Your task to perform on an android device: Search for flights from NYC to Buenos aires Image 0: 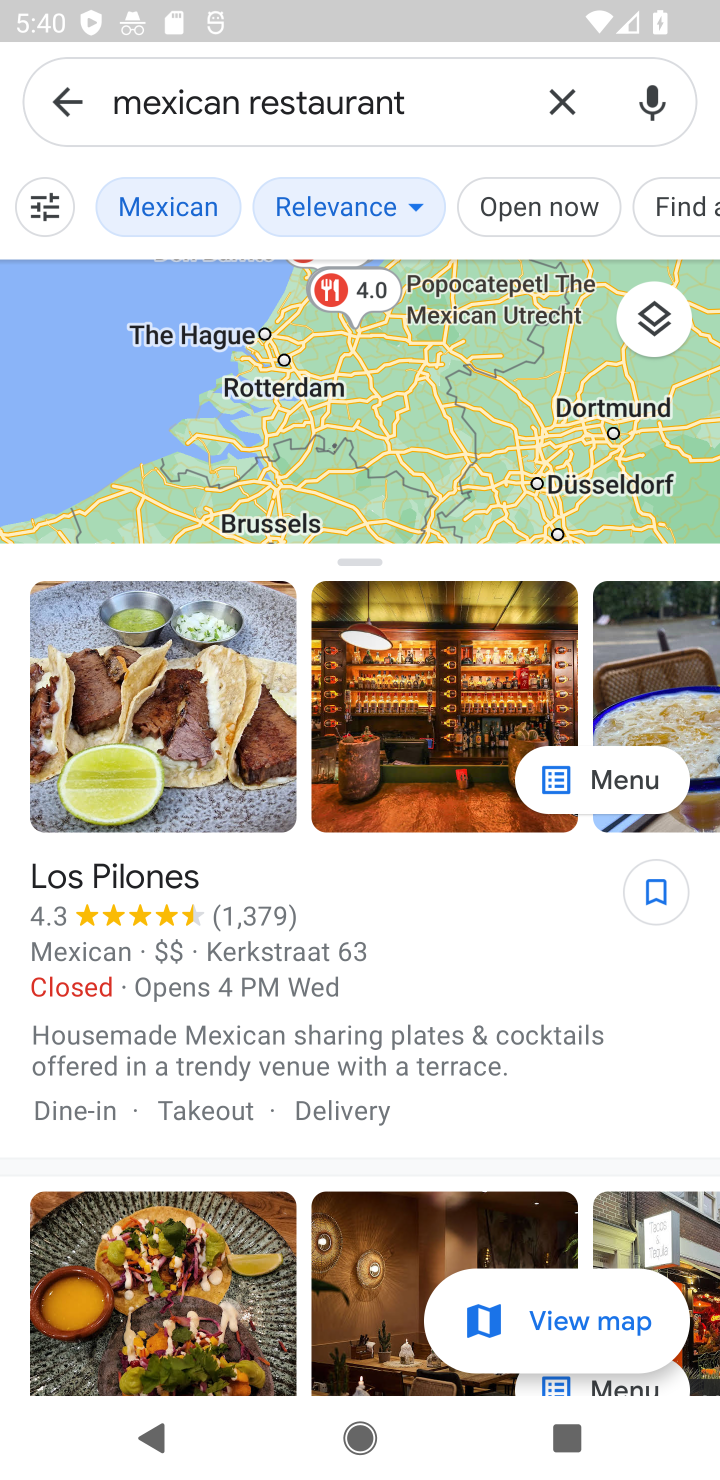
Step 0: press home button
Your task to perform on an android device: Search for flights from NYC to Buenos aires Image 1: 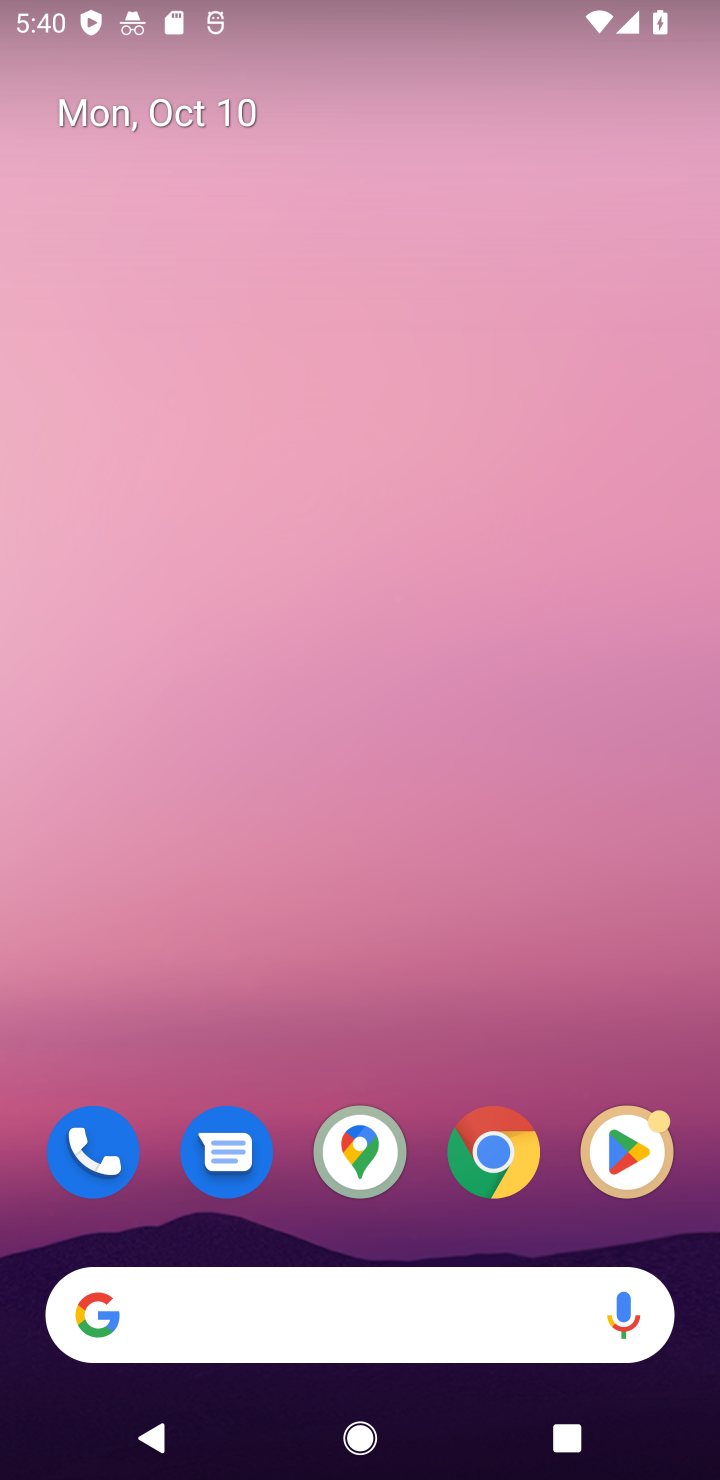
Step 1: click (494, 1151)
Your task to perform on an android device: Search for flights from NYC to Buenos aires Image 2: 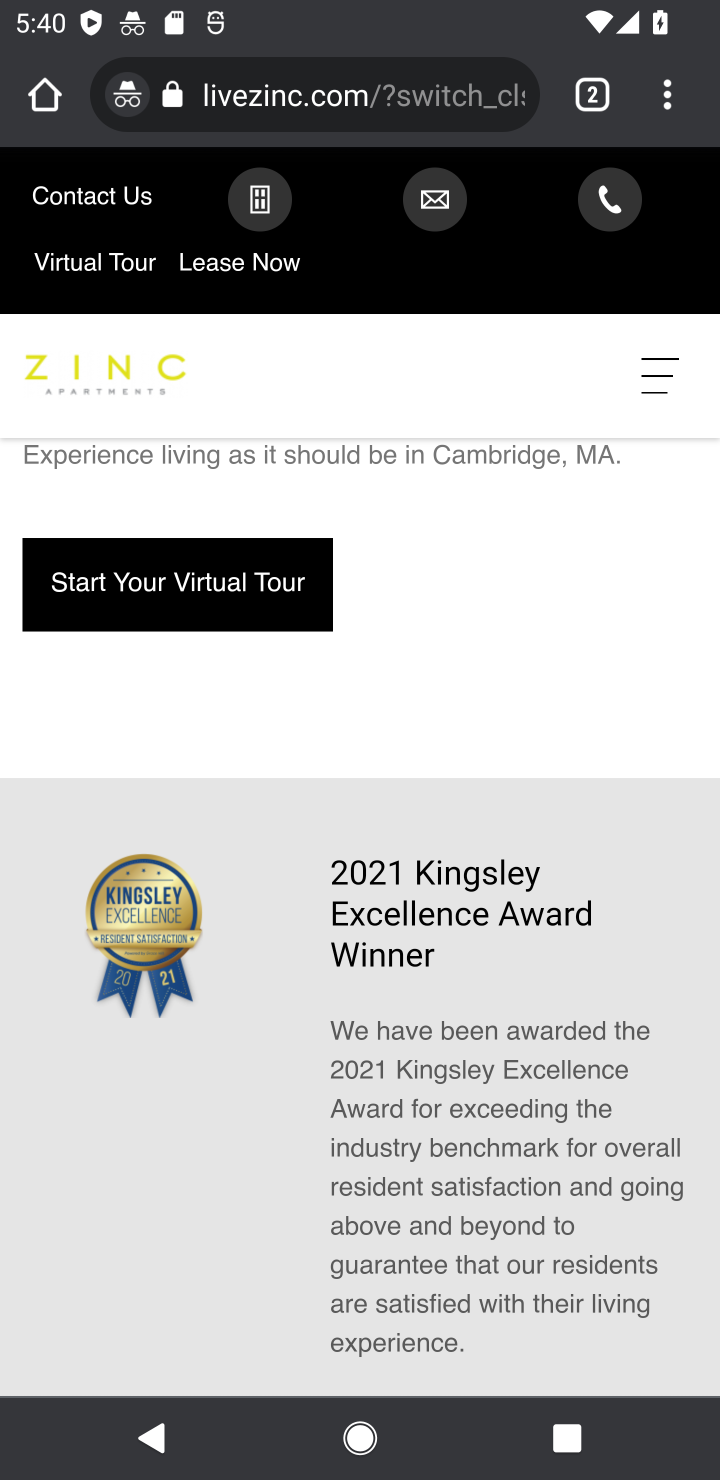
Step 2: click (485, 107)
Your task to perform on an android device: Search for flights from NYC to Buenos aires Image 3: 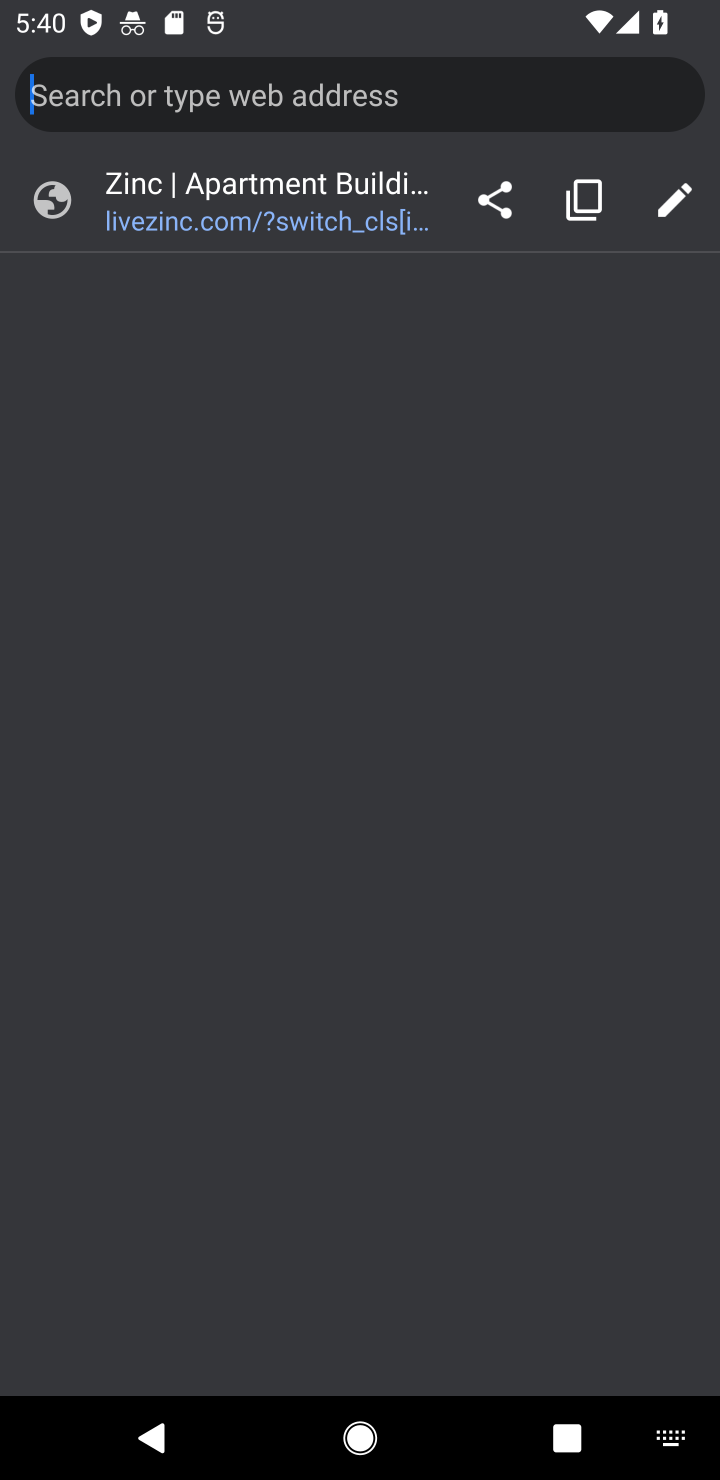
Step 3: type "flights from NYC to Buenos aires"
Your task to perform on an android device: Search for flights from NYC to Buenos aires Image 4: 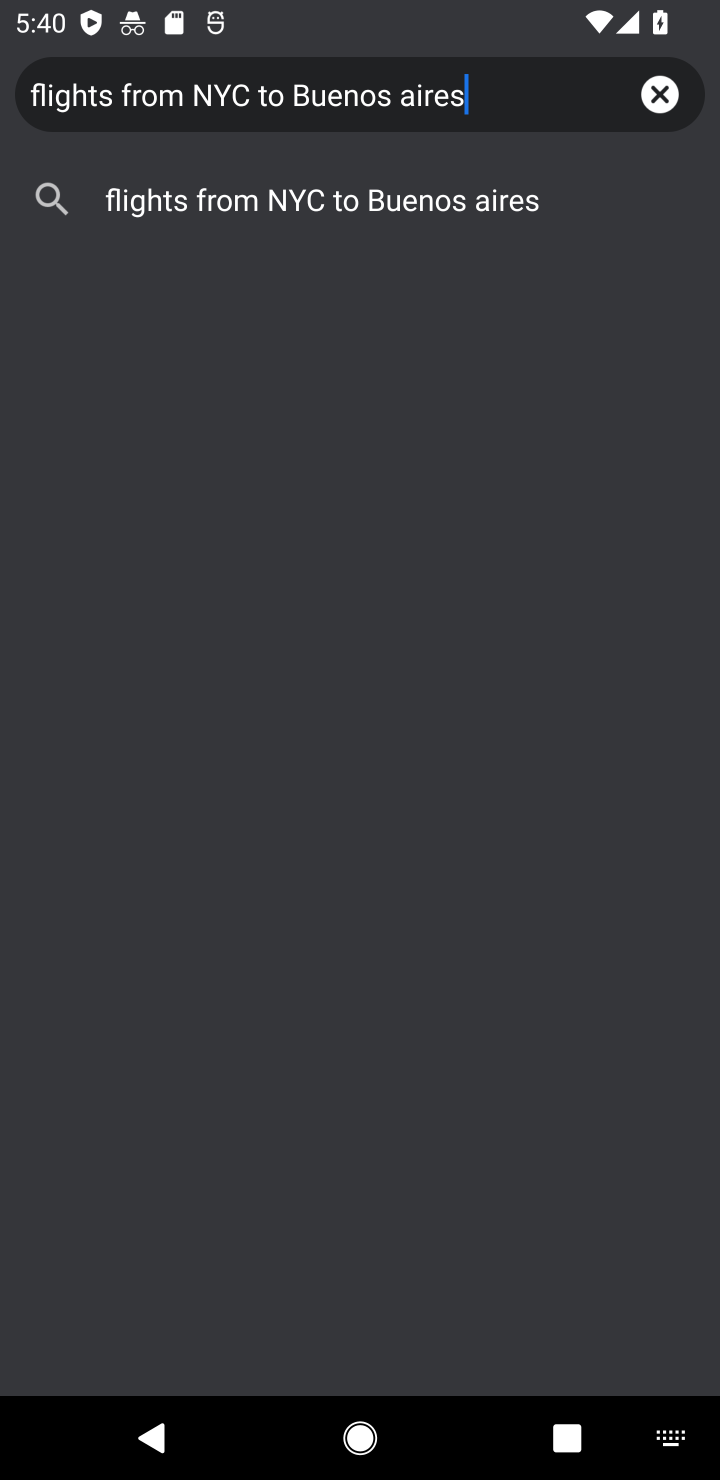
Step 4: click (479, 195)
Your task to perform on an android device: Search for flights from NYC to Buenos aires Image 5: 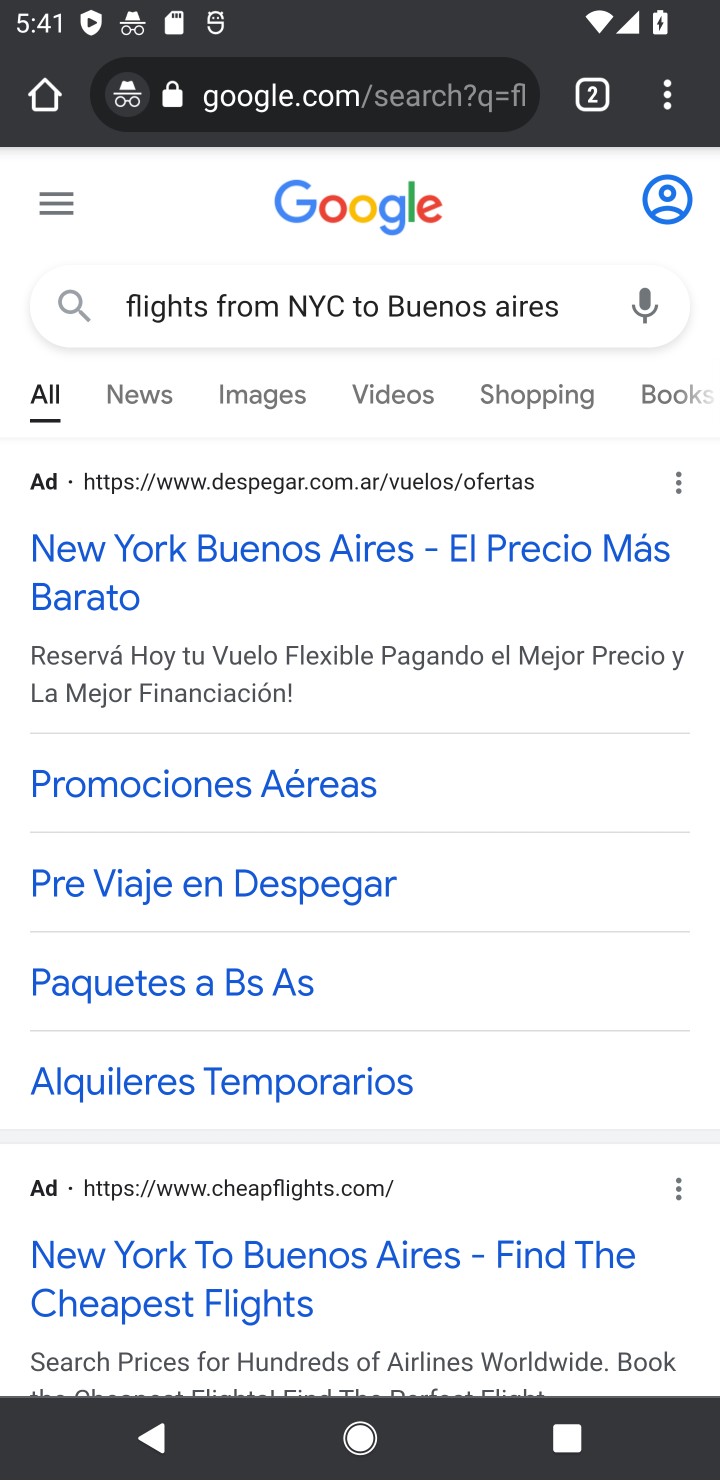
Step 5: task complete